Your task to perform on an android device: Open Google Chrome and open the bookmarks view Image 0: 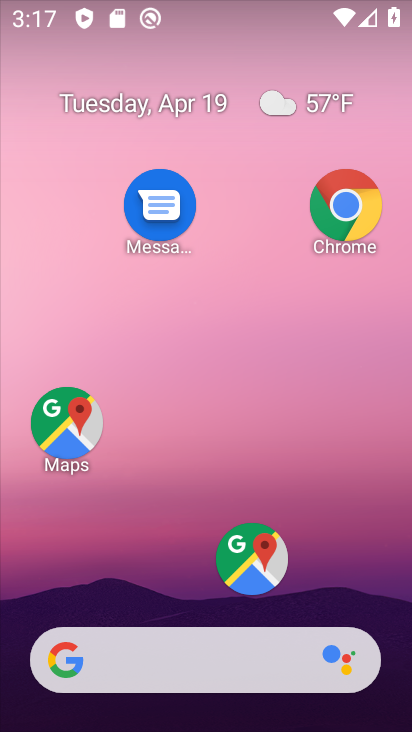
Step 0: click (344, 202)
Your task to perform on an android device: Open Google Chrome and open the bookmarks view Image 1: 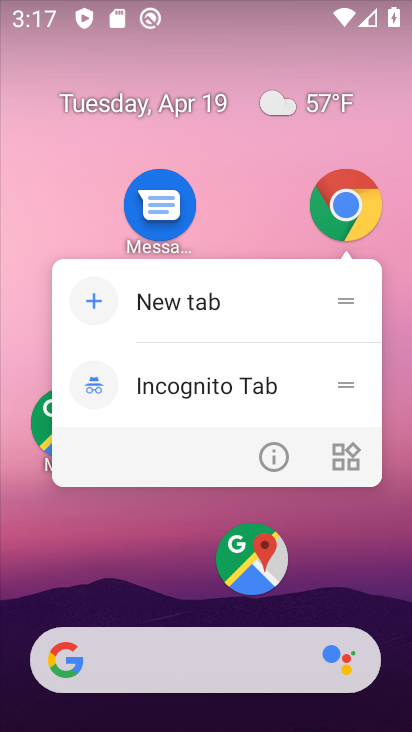
Step 1: click (354, 194)
Your task to perform on an android device: Open Google Chrome and open the bookmarks view Image 2: 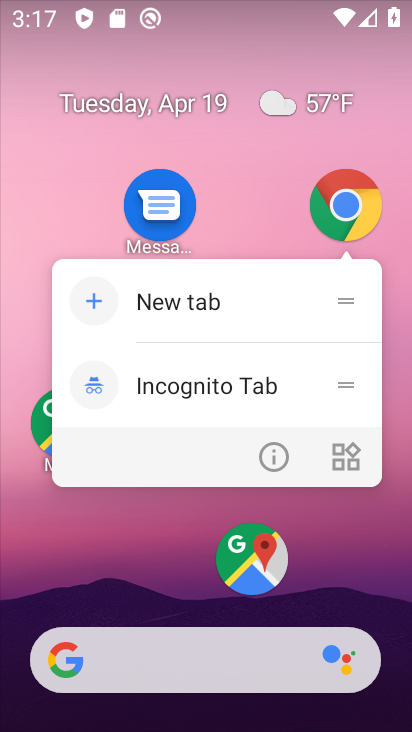
Step 2: click (334, 198)
Your task to perform on an android device: Open Google Chrome and open the bookmarks view Image 3: 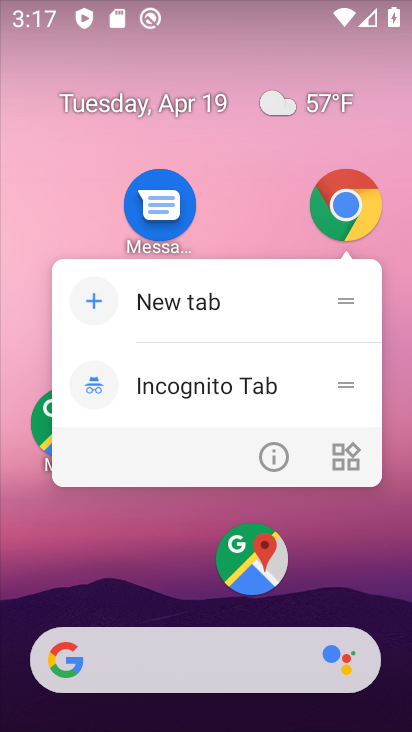
Step 3: click (341, 210)
Your task to perform on an android device: Open Google Chrome and open the bookmarks view Image 4: 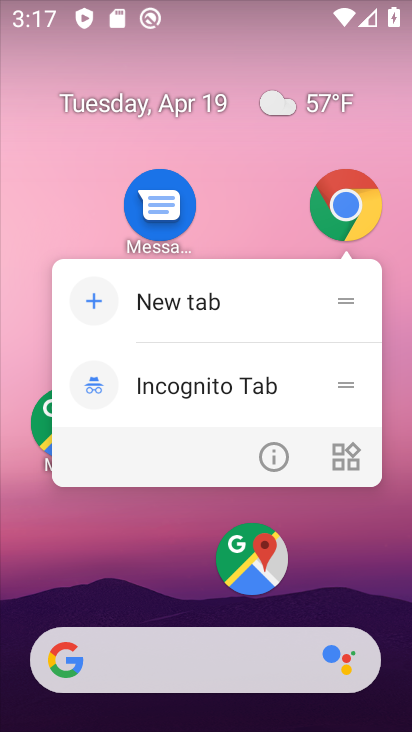
Step 4: click (353, 206)
Your task to perform on an android device: Open Google Chrome and open the bookmarks view Image 5: 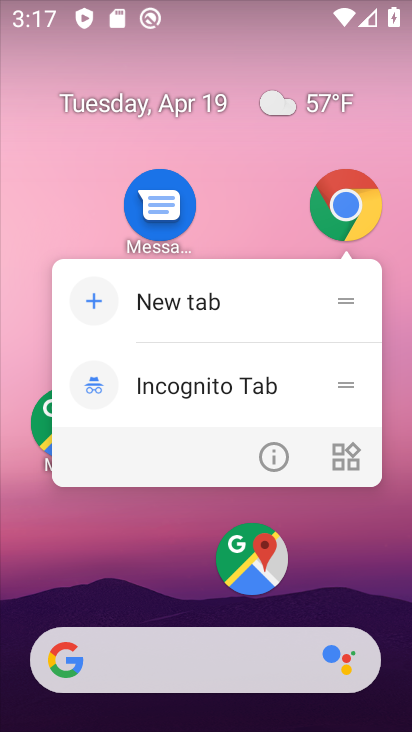
Step 5: click (168, 540)
Your task to perform on an android device: Open Google Chrome and open the bookmarks view Image 6: 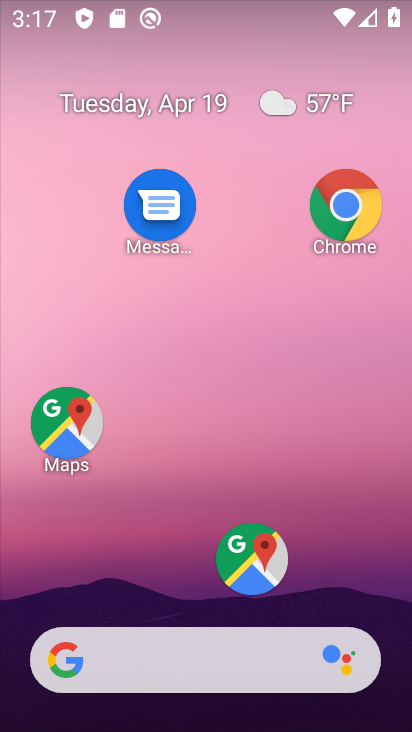
Step 6: drag from (153, 589) to (200, 145)
Your task to perform on an android device: Open Google Chrome and open the bookmarks view Image 7: 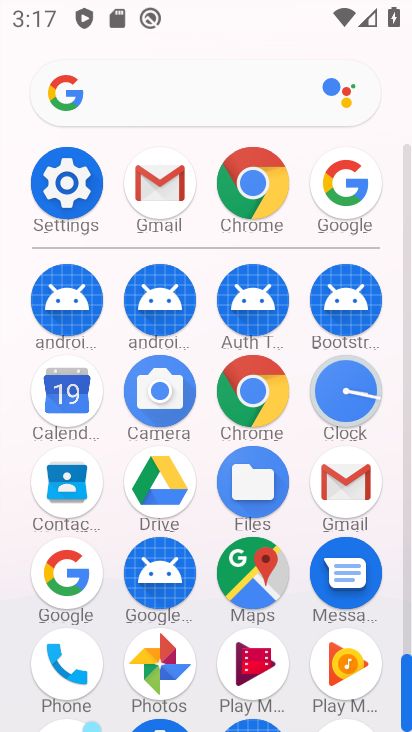
Step 7: click (264, 186)
Your task to perform on an android device: Open Google Chrome and open the bookmarks view Image 8: 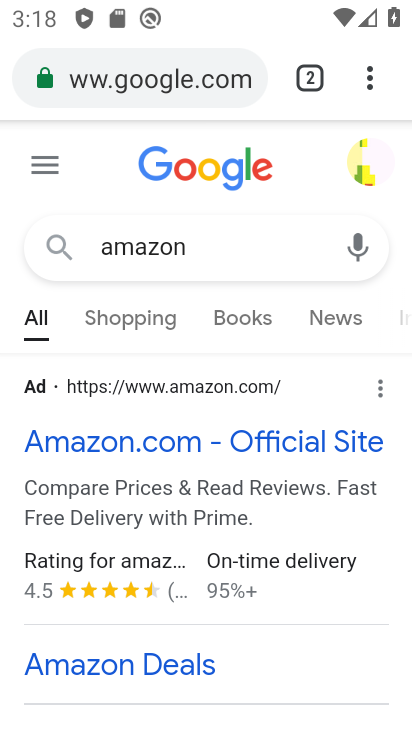
Step 8: click (204, 249)
Your task to perform on an android device: Open Google Chrome and open the bookmarks view Image 9: 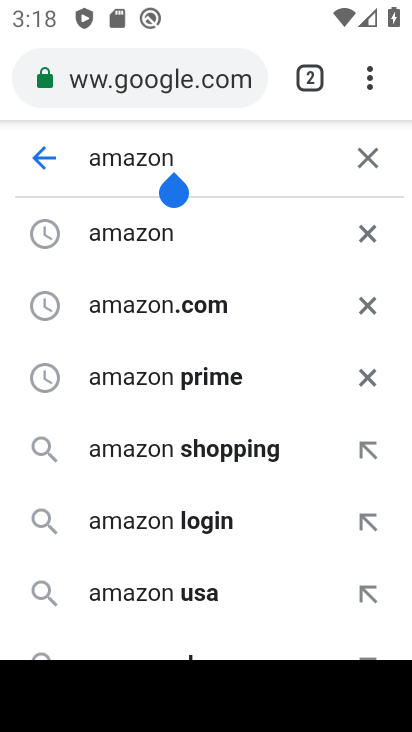
Step 9: click (370, 73)
Your task to perform on an android device: Open Google Chrome and open the bookmarks view Image 10: 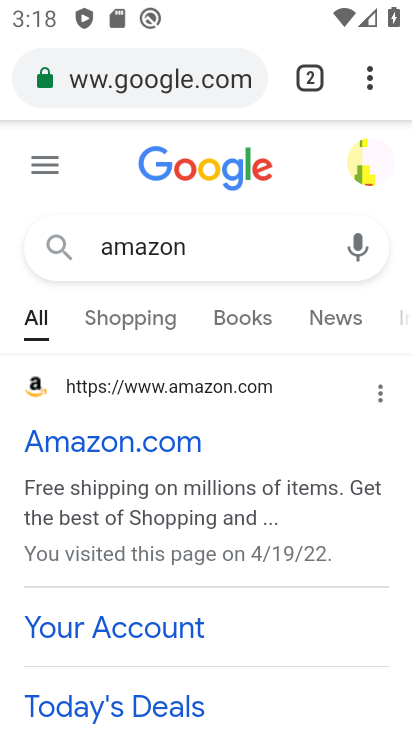
Step 10: click (380, 70)
Your task to perform on an android device: Open Google Chrome and open the bookmarks view Image 11: 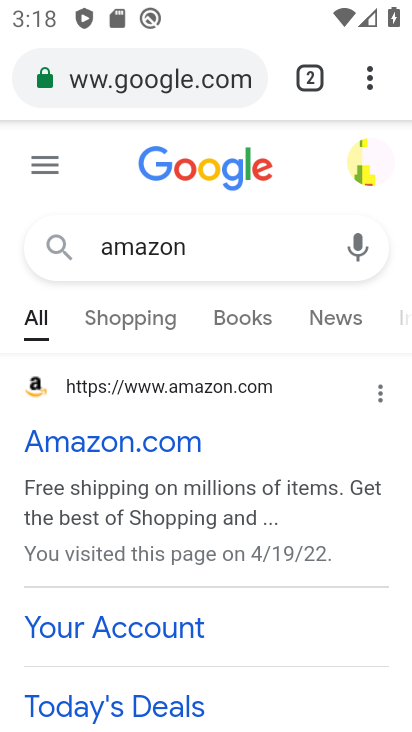
Step 11: click (372, 76)
Your task to perform on an android device: Open Google Chrome and open the bookmarks view Image 12: 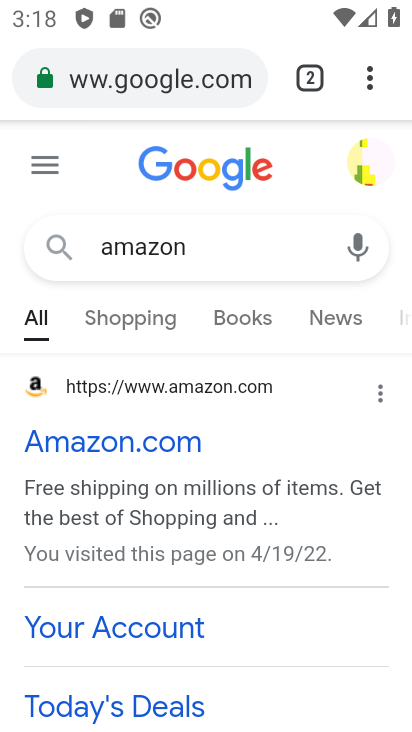
Step 12: click (372, 76)
Your task to perform on an android device: Open Google Chrome and open the bookmarks view Image 13: 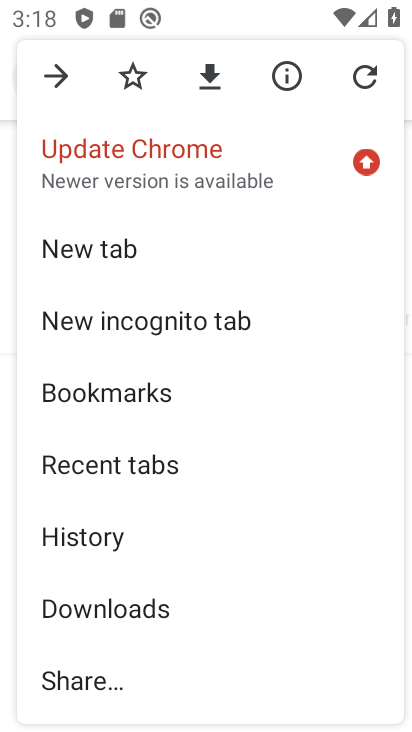
Step 13: click (86, 387)
Your task to perform on an android device: Open Google Chrome and open the bookmarks view Image 14: 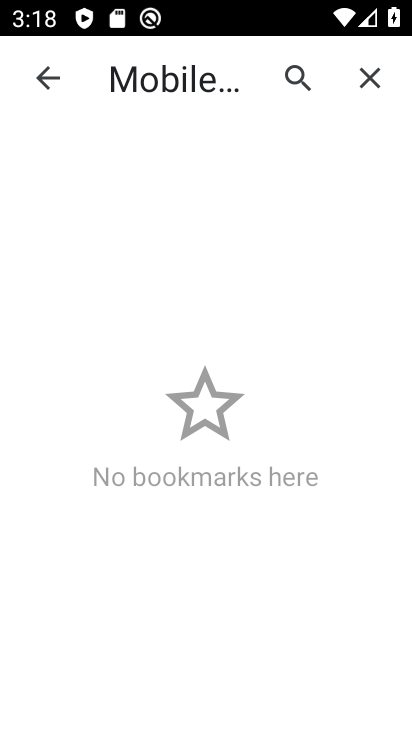
Step 14: task complete